Your task to perform on an android device: Is it going to rain today? Image 0: 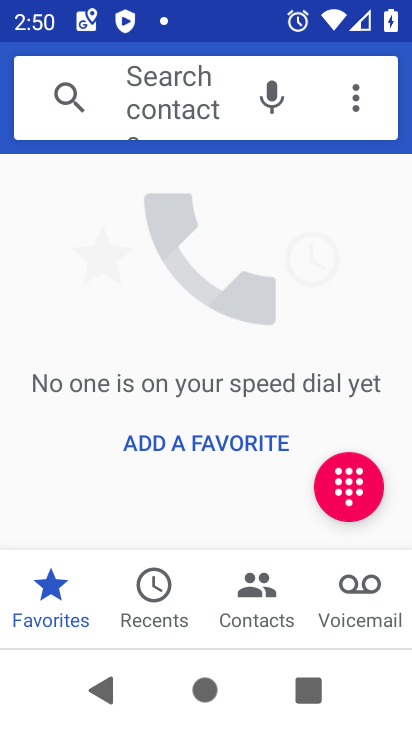
Step 0: press home button
Your task to perform on an android device: Is it going to rain today? Image 1: 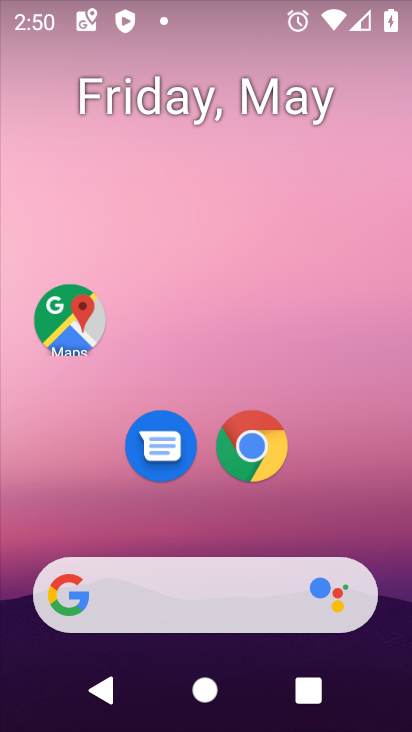
Step 1: click (255, 442)
Your task to perform on an android device: Is it going to rain today? Image 2: 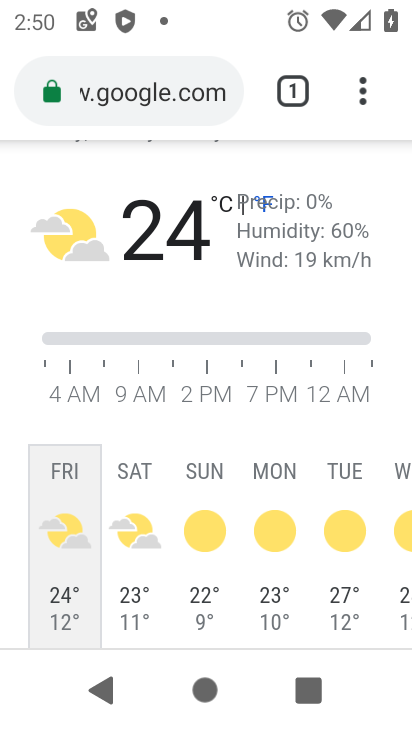
Step 2: click (173, 83)
Your task to perform on an android device: Is it going to rain today? Image 3: 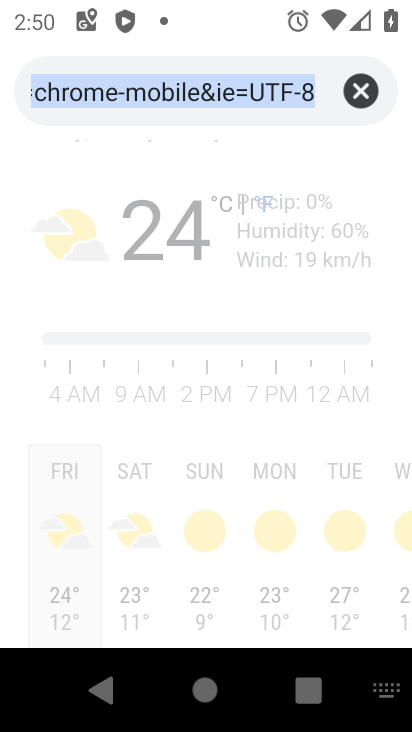
Step 3: type "Is it going to rain today?"
Your task to perform on an android device: Is it going to rain today? Image 4: 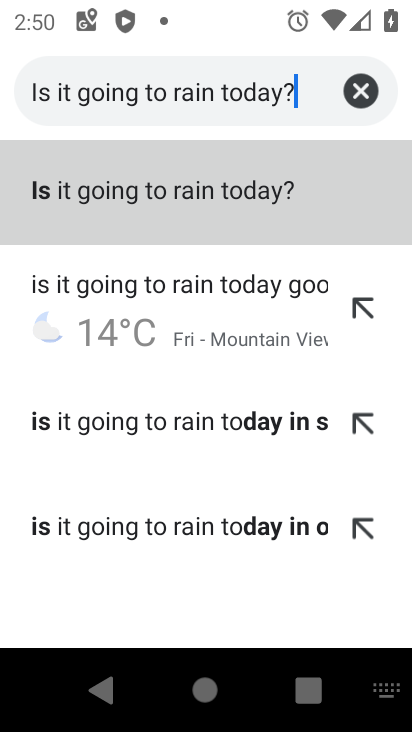
Step 4: click (211, 201)
Your task to perform on an android device: Is it going to rain today? Image 5: 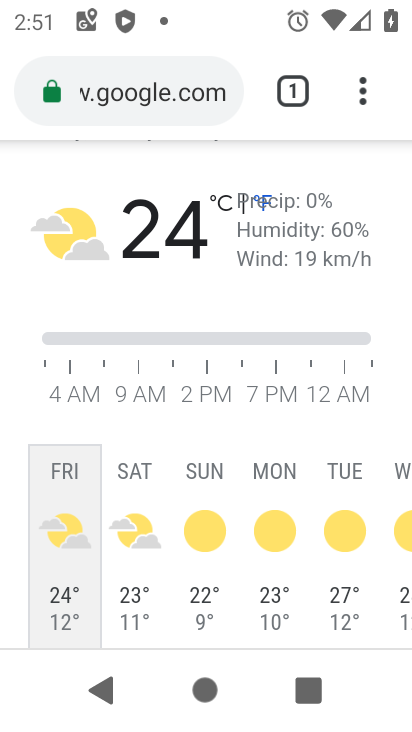
Step 5: task complete